Your task to perform on an android device: Go to location settings Image 0: 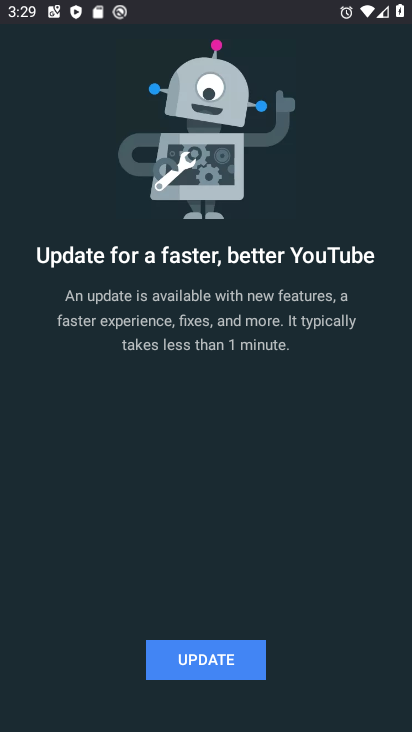
Step 0: drag from (306, 630) to (310, 139)
Your task to perform on an android device: Go to location settings Image 1: 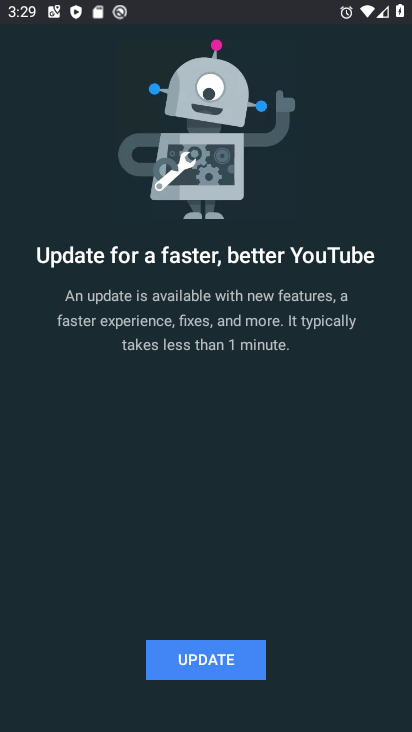
Step 1: press back button
Your task to perform on an android device: Go to location settings Image 2: 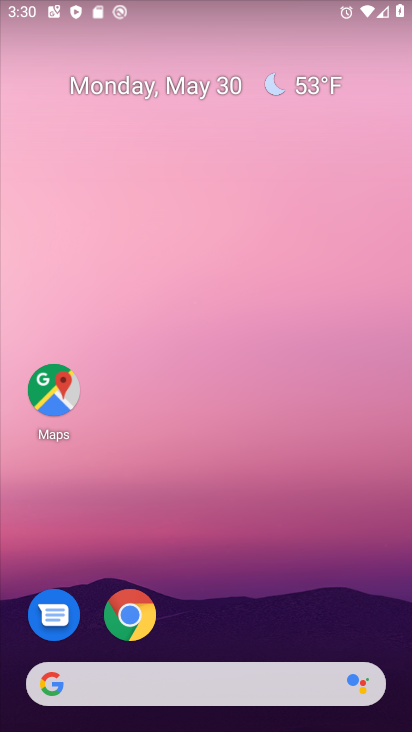
Step 2: drag from (297, 624) to (320, 161)
Your task to perform on an android device: Go to location settings Image 3: 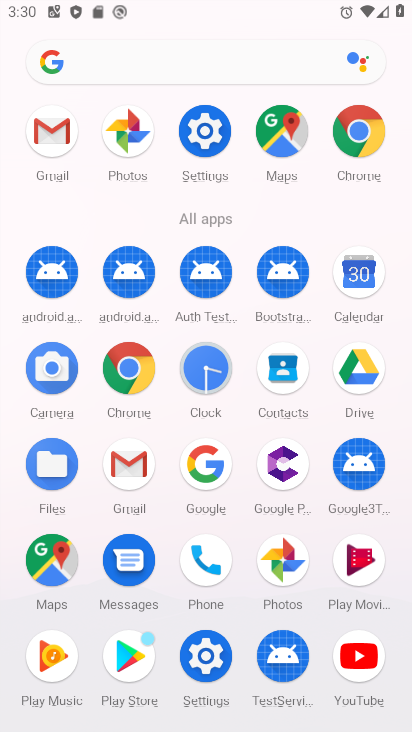
Step 3: click (219, 148)
Your task to perform on an android device: Go to location settings Image 4: 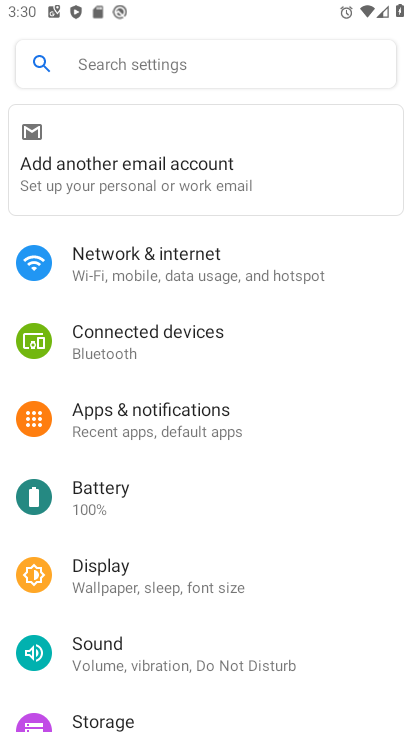
Step 4: drag from (171, 616) to (202, 459)
Your task to perform on an android device: Go to location settings Image 5: 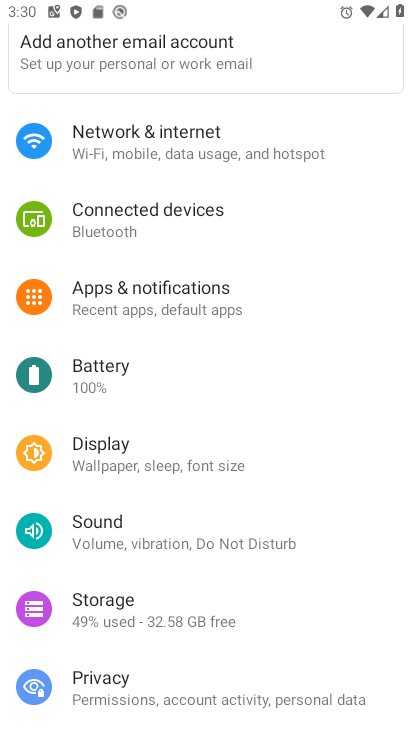
Step 5: drag from (144, 661) to (182, 428)
Your task to perform on an android device: Go to location settings Image 6: 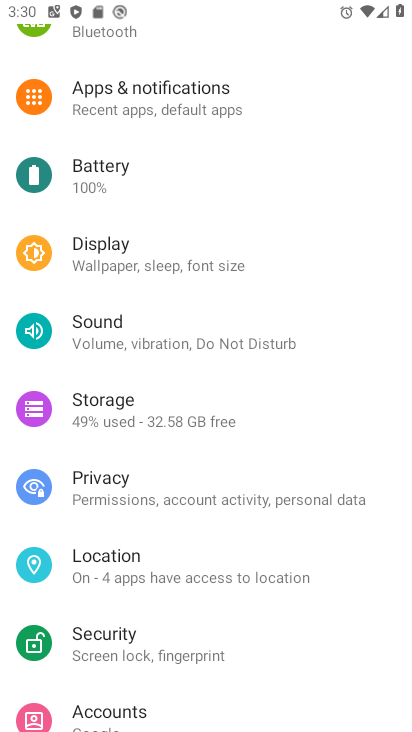
Step 6: click (66, 579)
Your task to perform on an android device: Go to location settings Image 7: 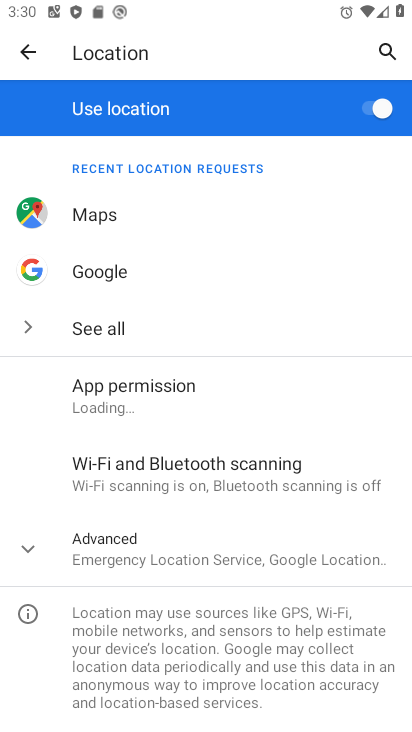
Step 7: task complete